Your task to perform on an android device: see tabs open on other devices in the chrome app Image 0: 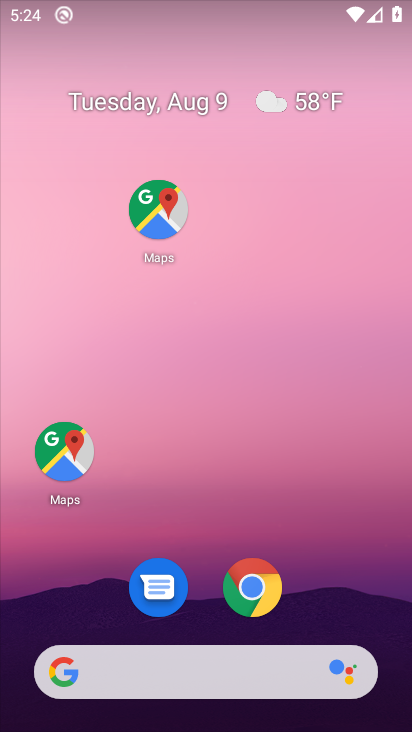
Step 0: drag from (375, 427) to (288, 73)
Your task to perform on an android device: see tabs open on other devices in the chrome app Image 1: 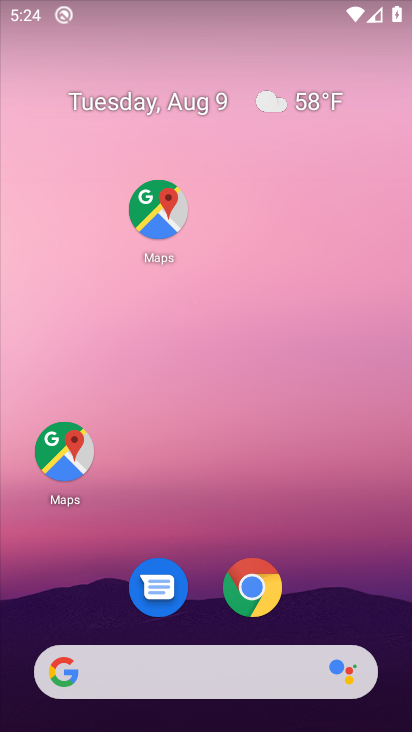
Step 1: drag from (253, 567) to (259, 142)
Your task to perform on an android device: see tabs open on other devices in the chrome app Image 2: 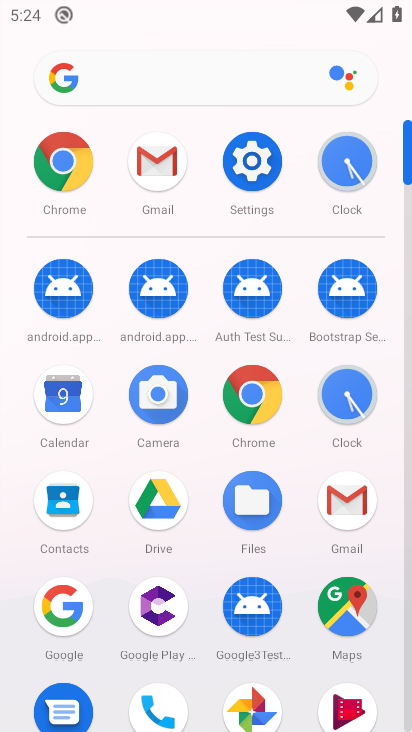
Step 2: click (249, 391)
Your task to perform on an android device: see tabs open on other devices in the chrome app Image 3: 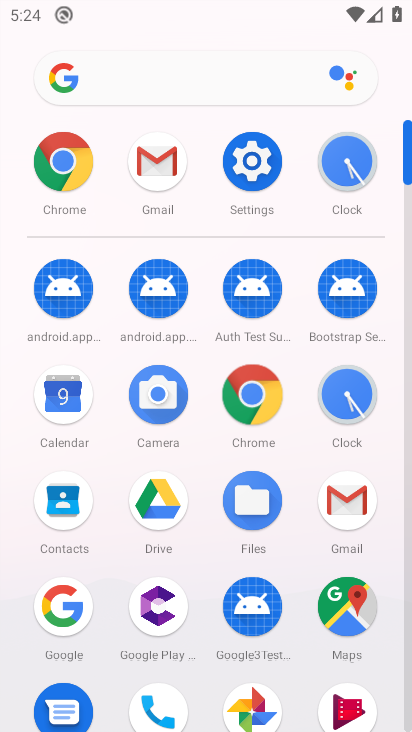
Step 3: click (250, 389)
Your task to perform on an android device: see tabs open on other devices in the chrome app Image 4: 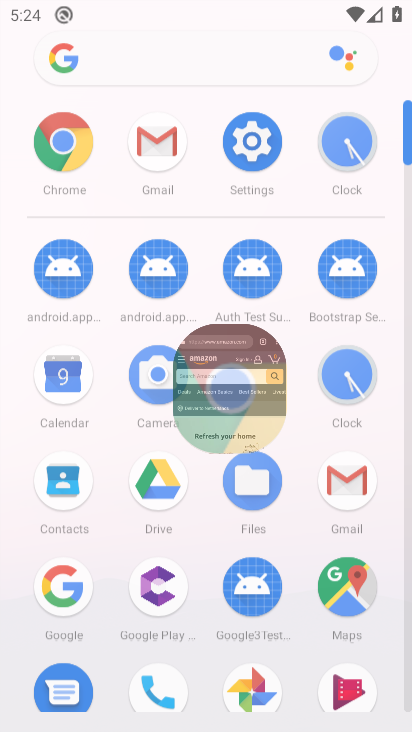
Step 4: click (250, 389)
Your task to perform on an android device: see tabs open on other devices in the chrome app Image 5: 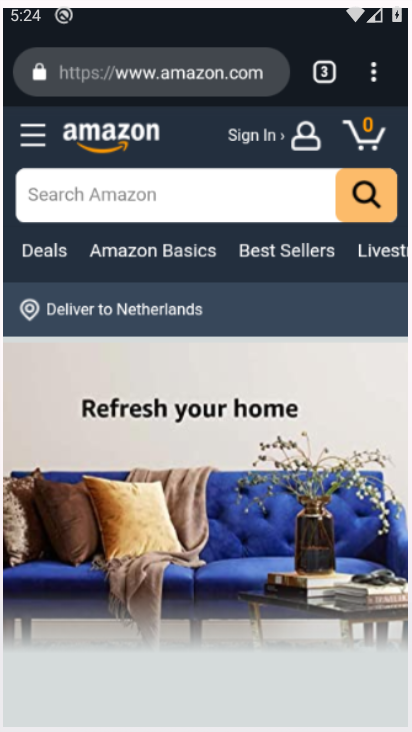
Step 5: click (250, 389)
Your task to perform on an android device: see tabs open on other devices in the chrome app Image 6: 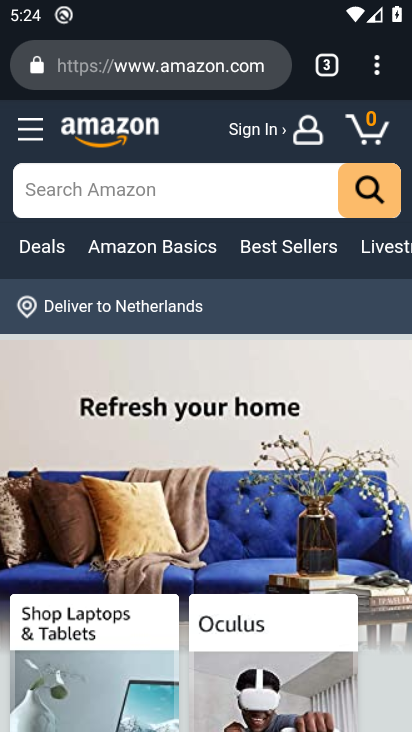
Step 6: task complete